Your task to perform on an android device: Open the calendar app, open the side menu, and click the "Day" option Image 0: 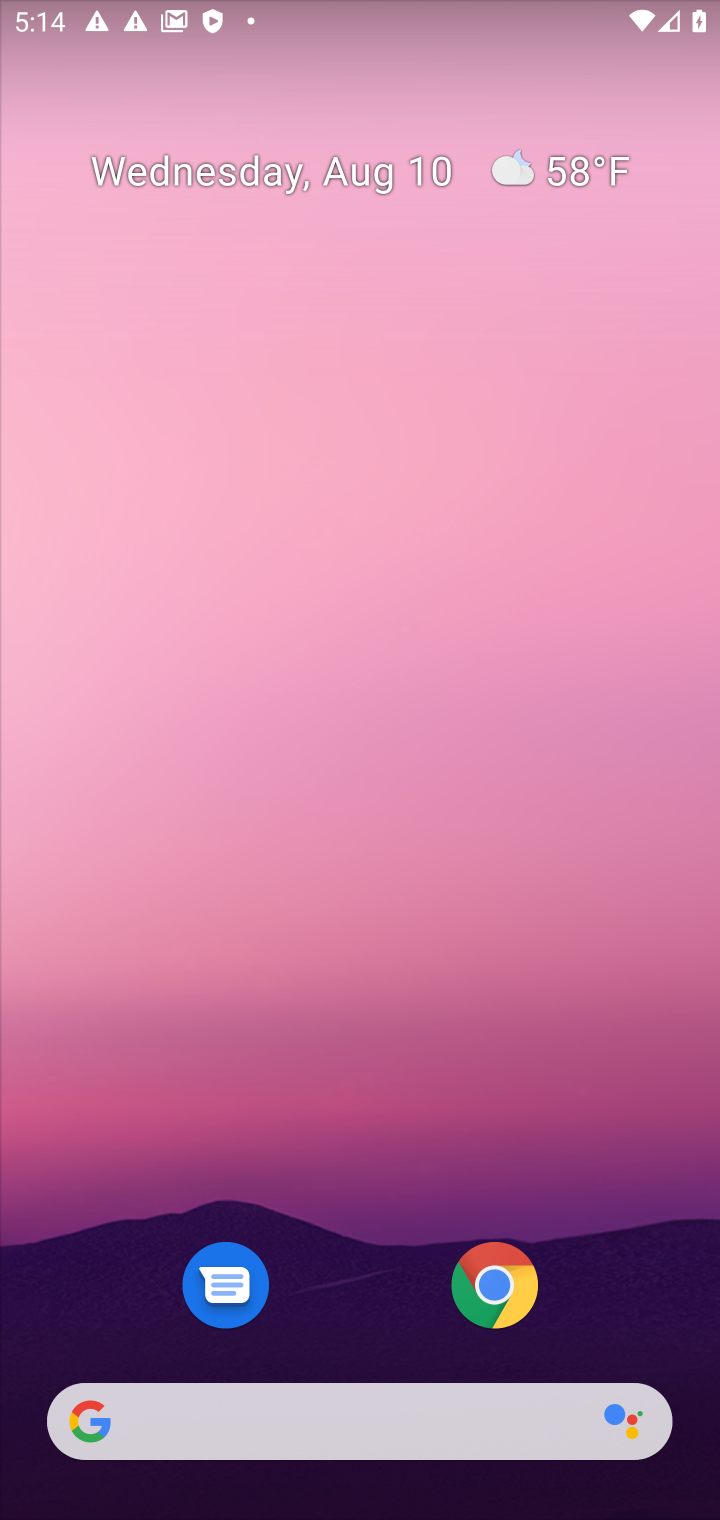
Step 0: press home button
Your task to perform on an android device: Open the calendar app, open the side menu, and click the "Day" option Image 1: 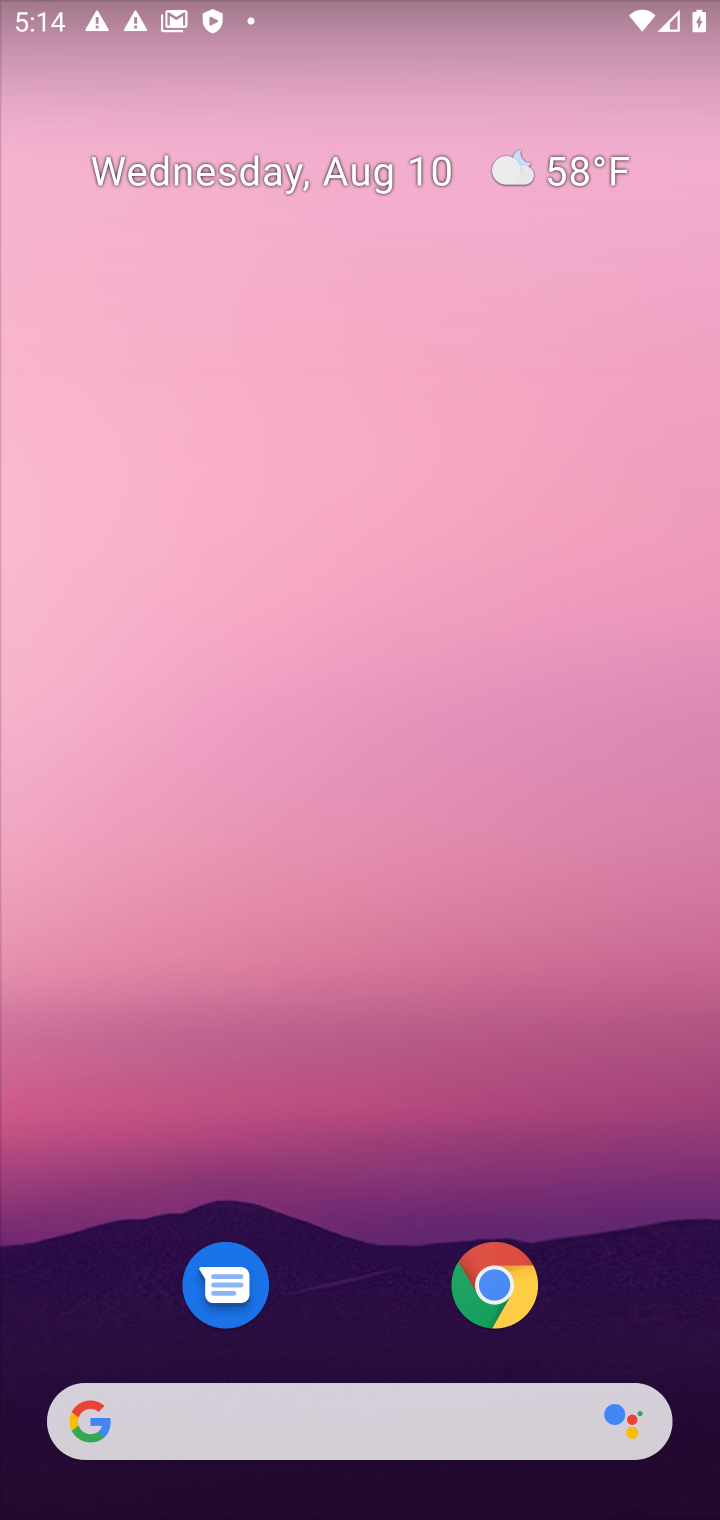
Step 1: drag from (371, 1244) to (674, 408)
Your task to perform on an android device: Open the calendar app, open the side menu, and click the "Day" option Image 2: 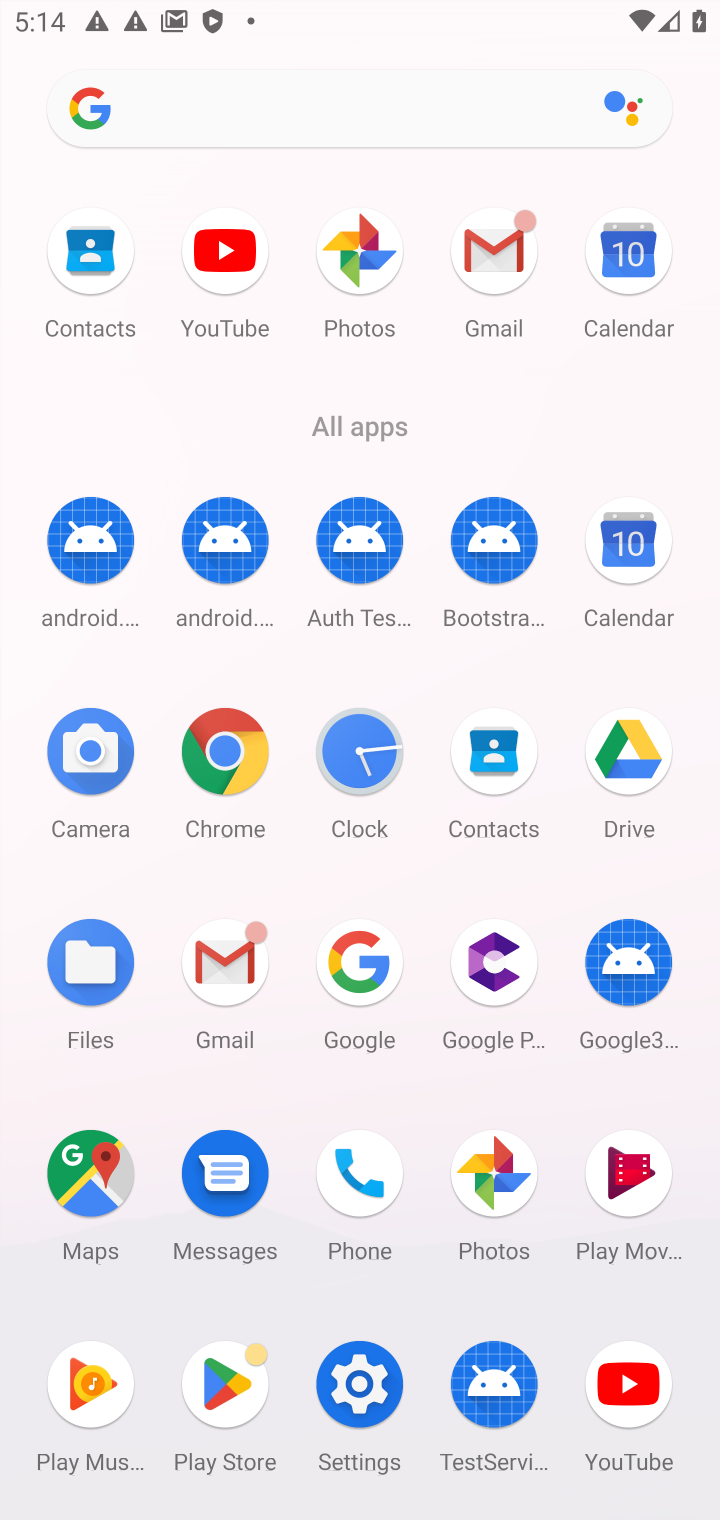
Step 2: click (620, 541)
Your task to perform on an android device: Open the calendar app, open the side menu, and click the "Day" option Image 3: 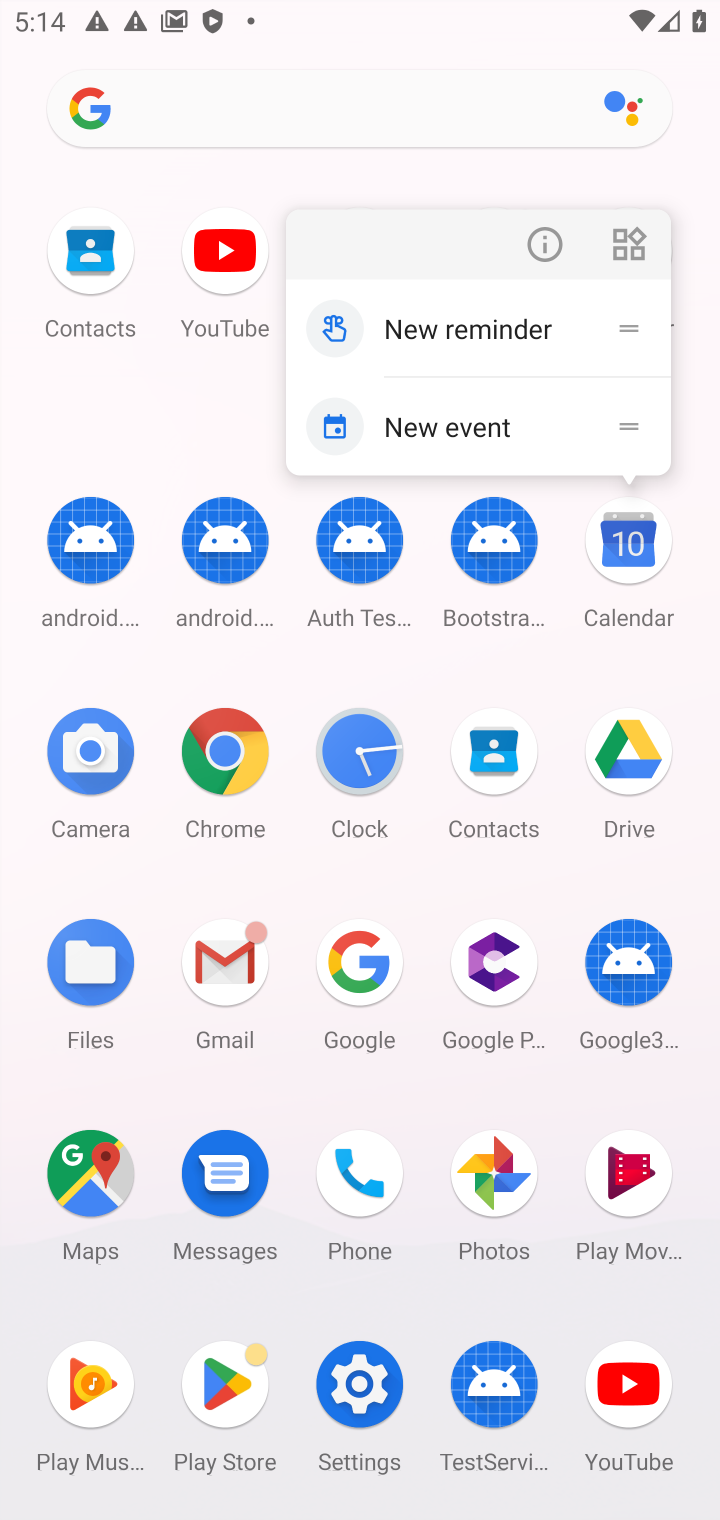
Step 3: click (629, 553)
Your task to perform on an android device: Open the calendar app, open the side menu, and click the "Day" option Image 4: 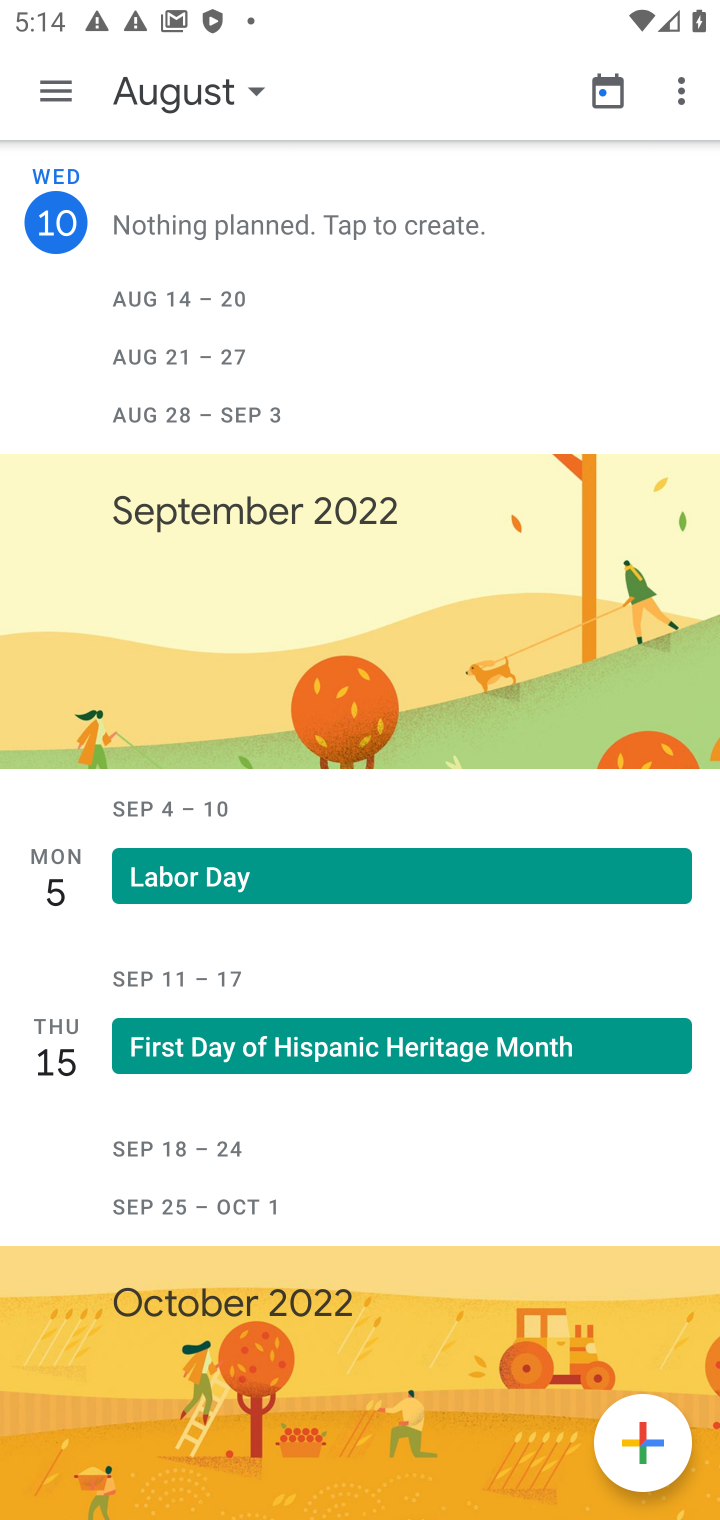
Step 4: click (48, 105)
Your task to perform on an android device: Open the calendar app, open the side menu, and click the "Day" option Image 5: 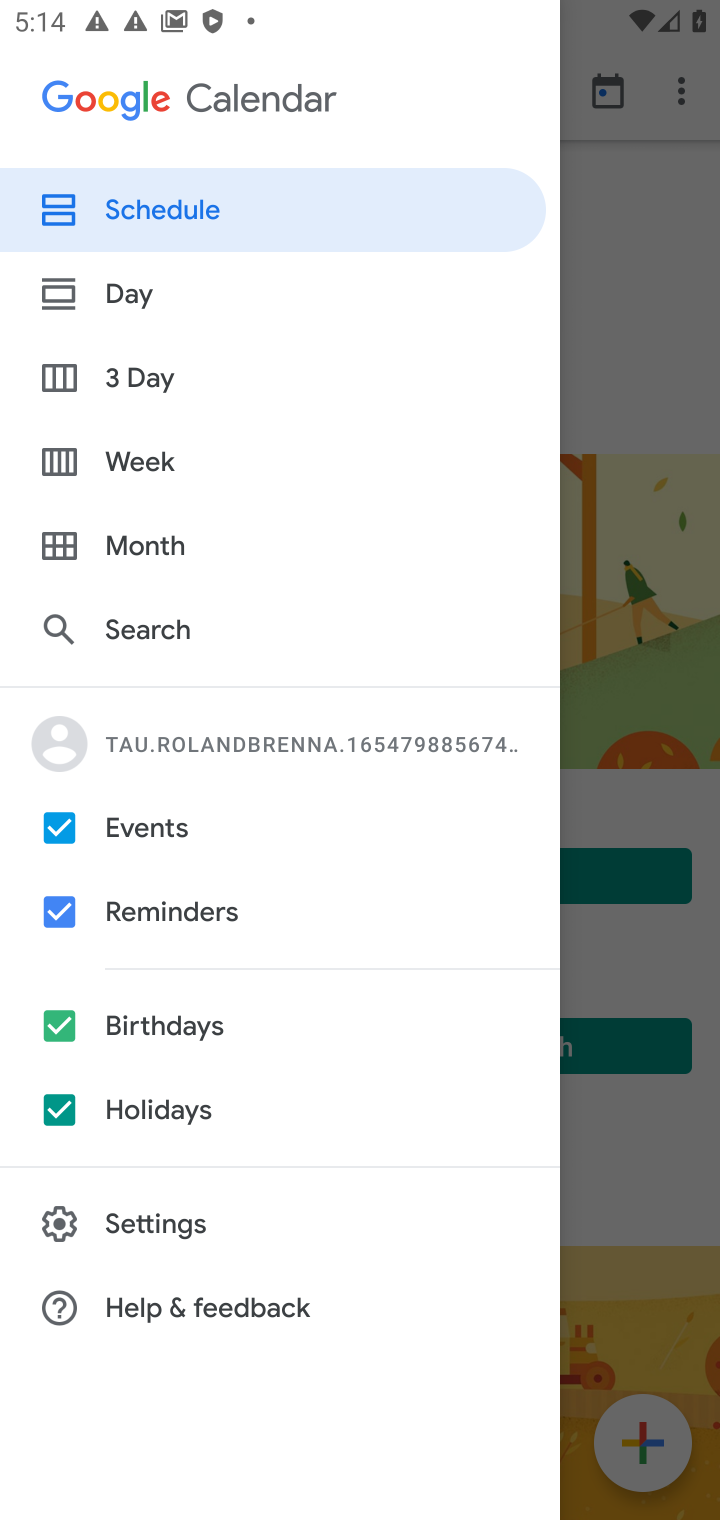
Step 5: click (77, 291)
Your task to perform on an android device: Open the calendar app, open the side menu, and click the "Day" option Image 6: 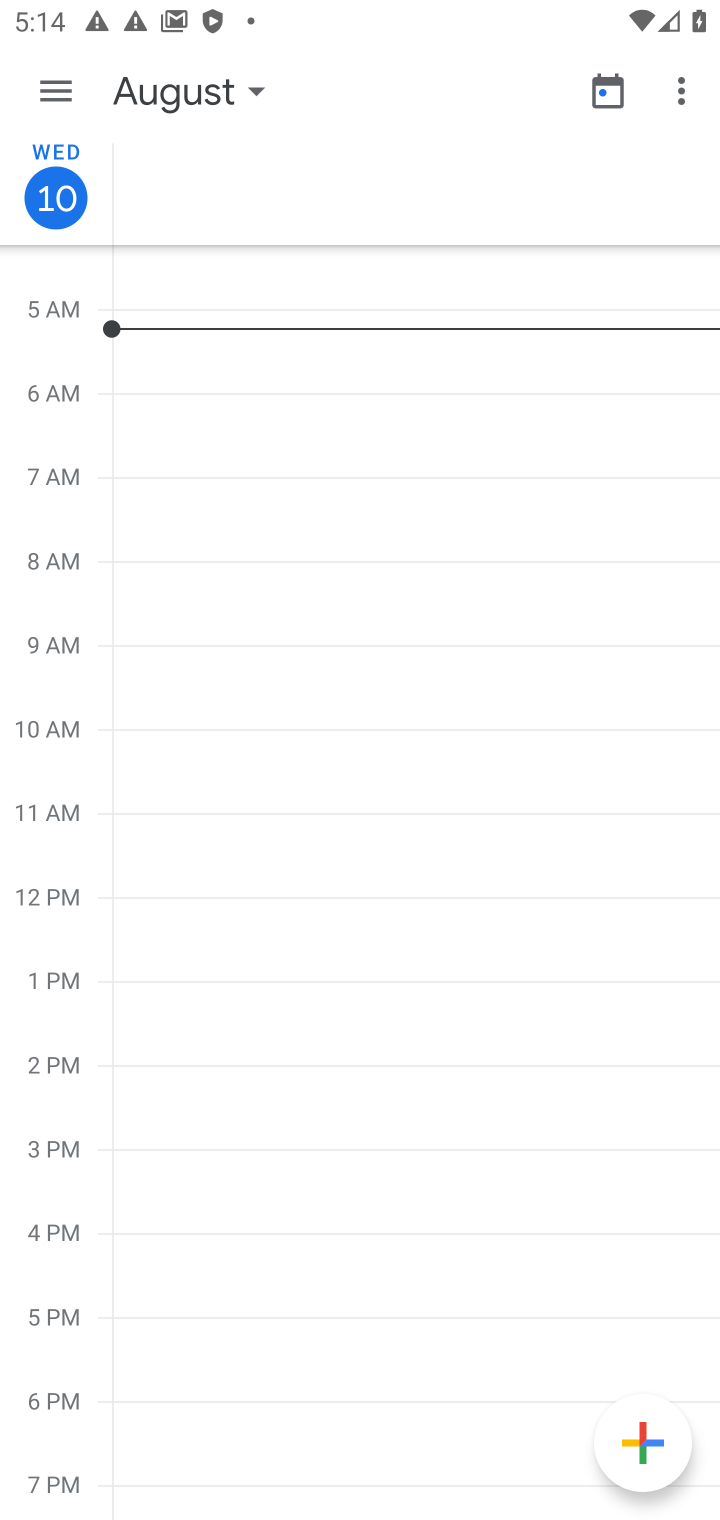
Step 6: task complete